Your task to perform on an android device: Open the phone app and click the voicemail tab. Image 0: 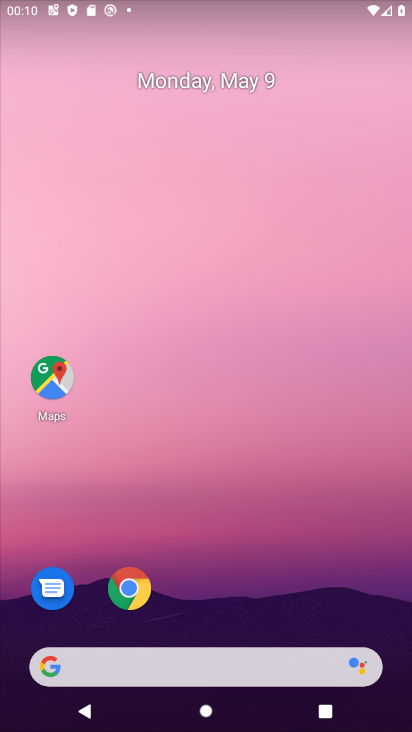
Step 0: drag from (300, 586) to (206, 19)
Your task to perform on an android device: Open the phone app and click the voicemail tab. Image 1: 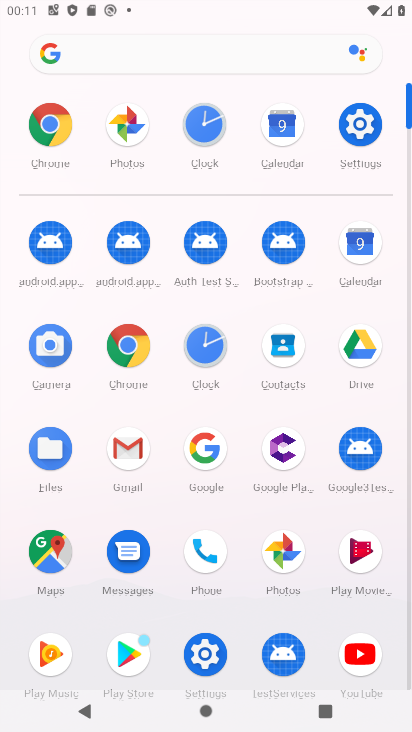
Step 1: click (199, 545)
Your task to perform on an android device: Open the phone app and click the voicemail tab. Image 2: 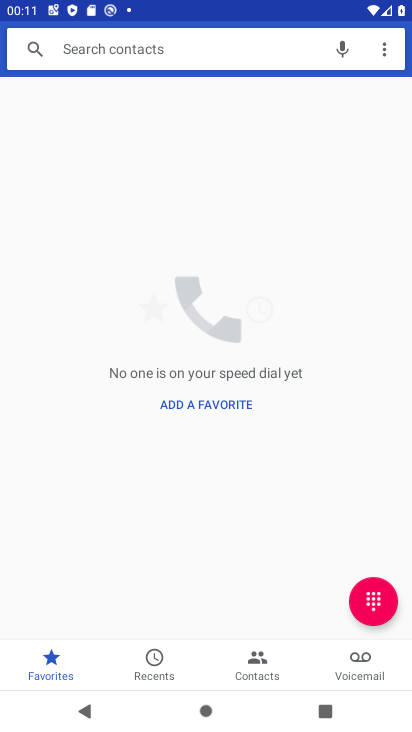
Step 2: click (349, 658)
Your task to perform on an android device: Open the phone app and click the voicemail tab. Image 3: 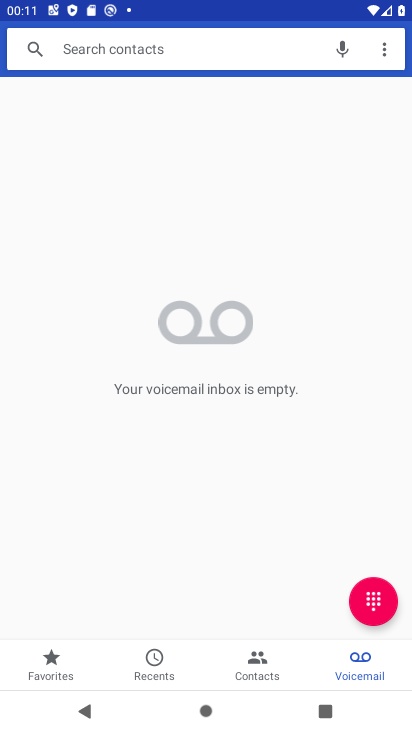
Step 3: task complete